Your task to perform on an android device: Open Youtube and go to "Your channel" Image 0: 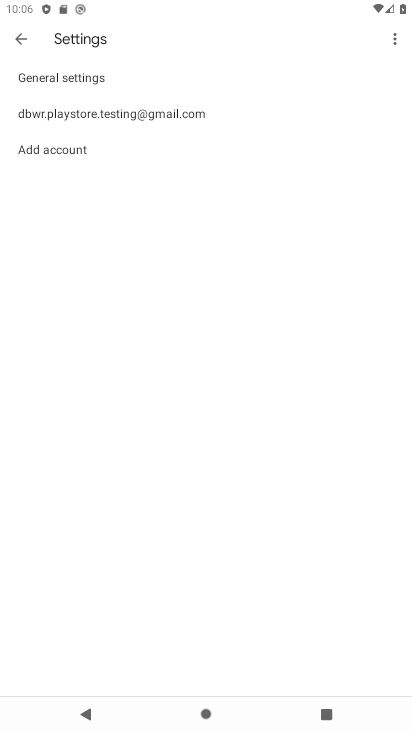
Step 0: press back button
Your task to perform on an android device: Open Youtube and go to "Your channel" Image 1: 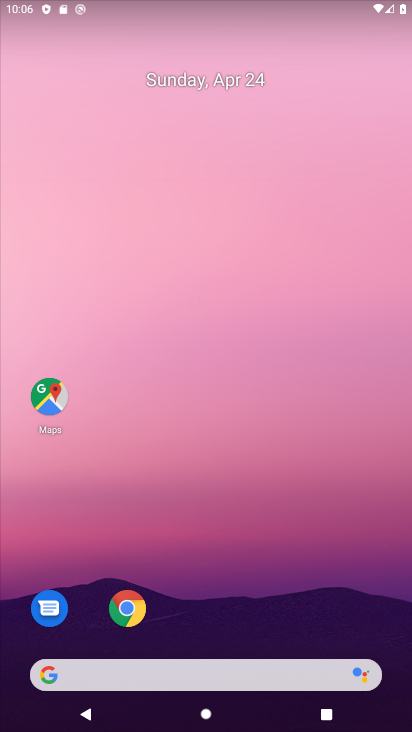
Step 1: drag from (310, 589) to (258, 88)
Your task to perform on an android device: Open Youtube and go to "Your channel" Image 2: 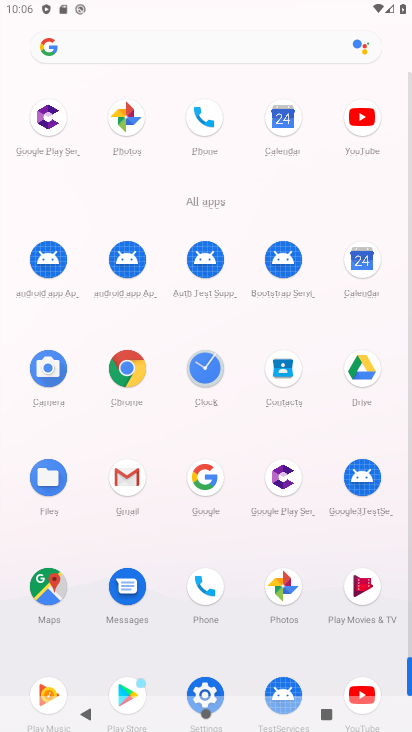
Step 2: click (359, 116)
Your task to perform on an android device: Open Youtube and go to "Your channel" Image 3: 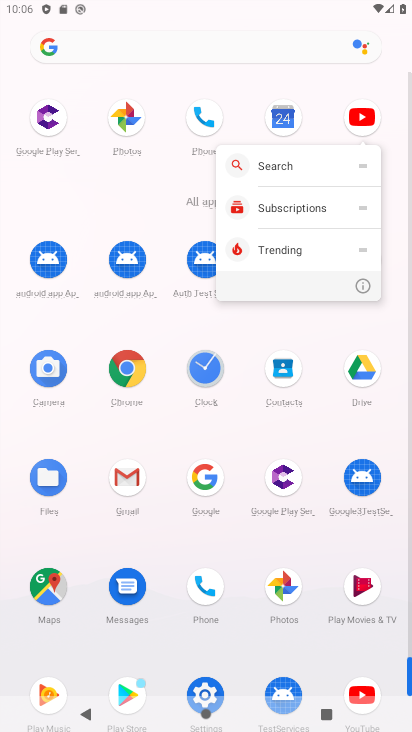
Step 3: click (359, 116)
Your task to perform on an android device: Open Youtube and go to "Your channel" Image 4: 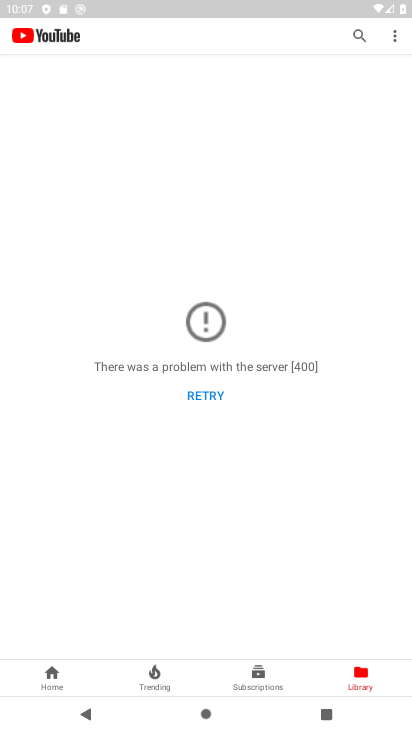
Step 4: click (344, 680)
Your task to perform on an android device: Open Youtube and go to "Your channel" Image 5: 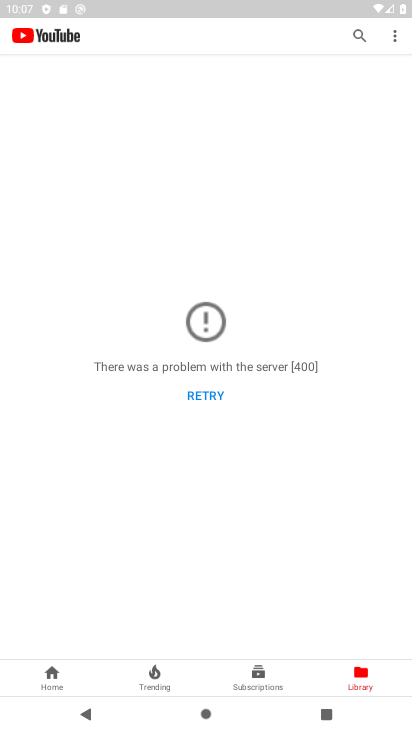
Step 5: task complete